Your task to perform on an android device: Show me popular games on the Play Store Image 0: 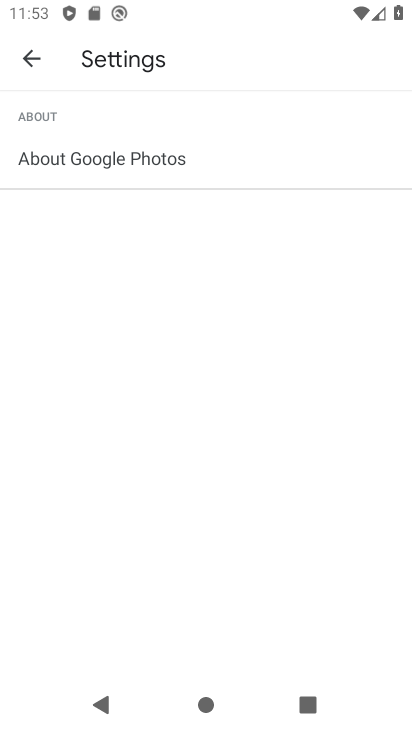
Step 0: press home button
Your task to perform on an android device: Show me popular games on the Play Store Image 1: 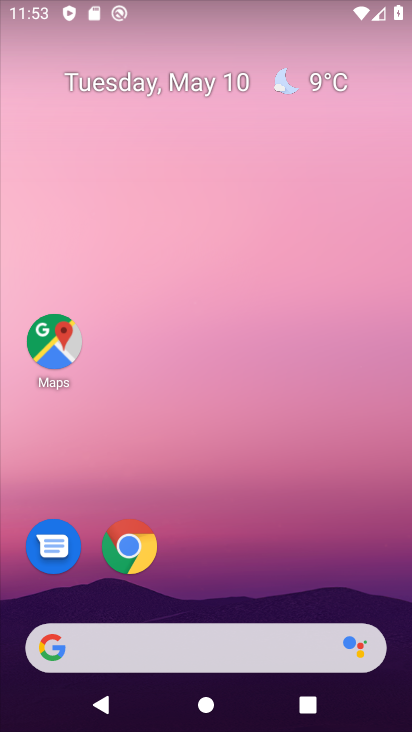
Step 1: drag from (192, 562) to (266, 69)
Your task to perform on an android device: Show me popular games on the Play Store Image 2: 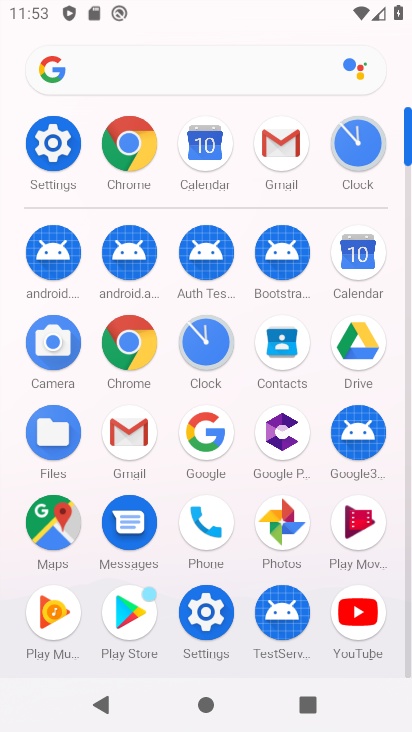
Step 2: click (123, 608)
Your task to perform on an android device: Show me popular games on the Play Store Image 3: 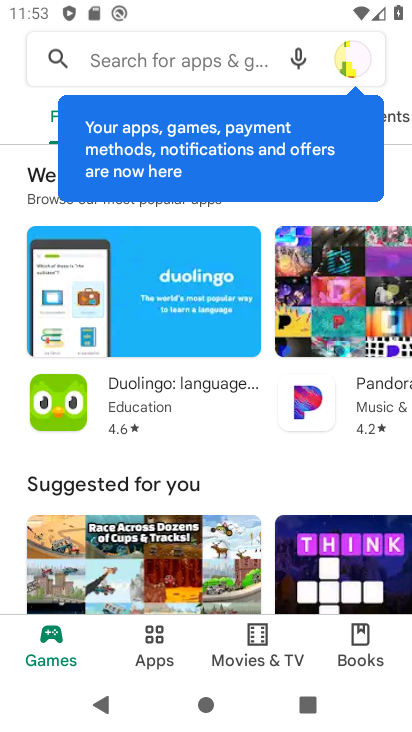
Step 3: click (360, 74)
Your task to perform on an android device: Show me popular games on the Play Store Image 4: 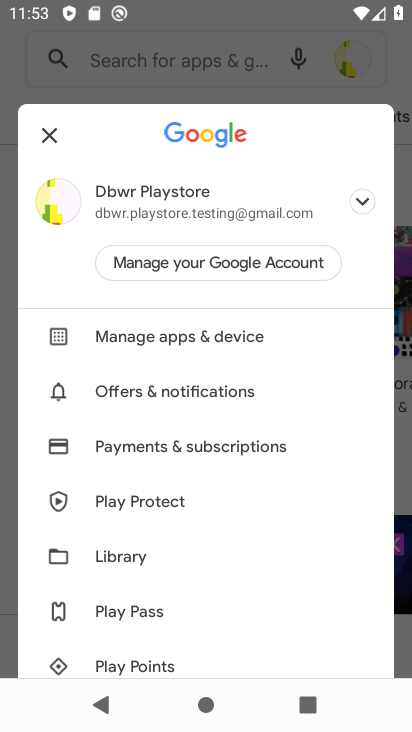
Step 4: click (42, 134)
Your task to perform on an android device: Show me popular games on the Play Store Image 5: 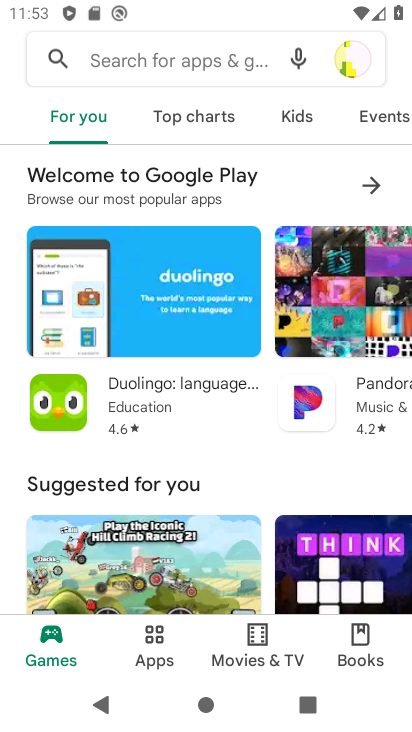
Step 5: click (189, 126)
Your task to perform on an android device: Show me popular games on the Play Store Image 6: 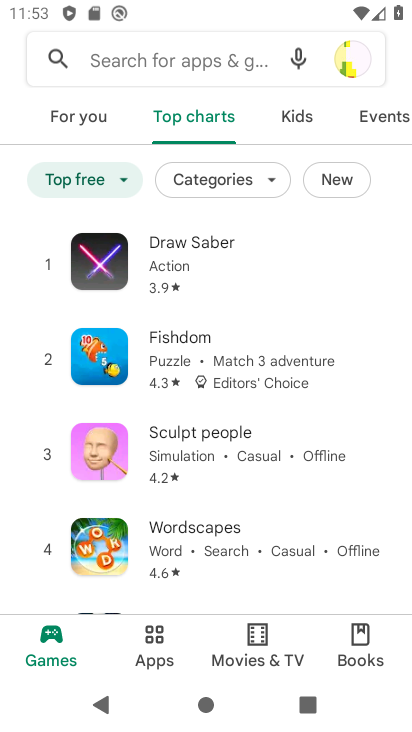
Step 6: task complete